Your task to perform on an android device: check out phone information Image 0: 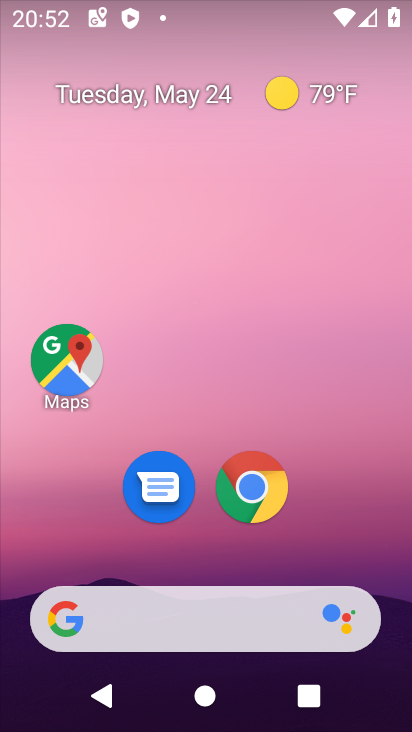
Step 0: press home button
Your task to perform on an android device: check out phone information Image 1: 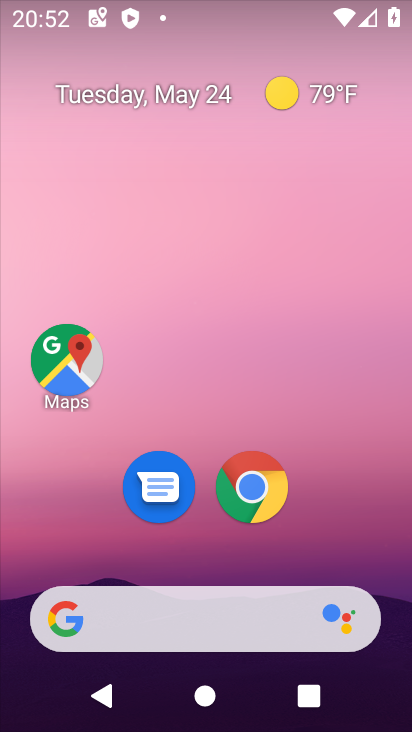
Step 1: drag from (391, 595) to (306, 92)
Your task to perform on an android device: check out phone information Image 2: 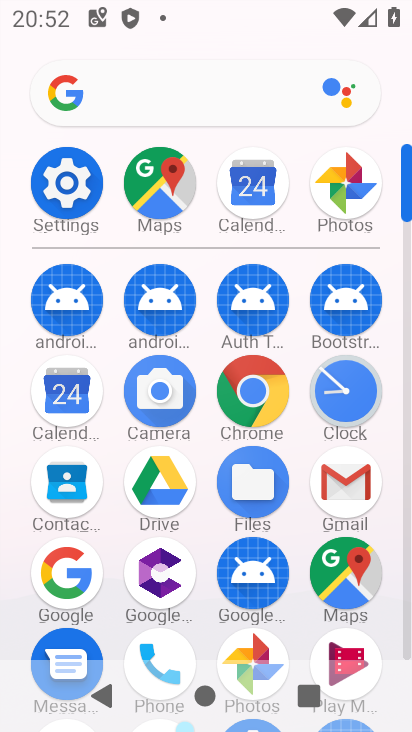
Step 2: click (405, 536)
Your task to perform on an android device: check out phone information Image 3: 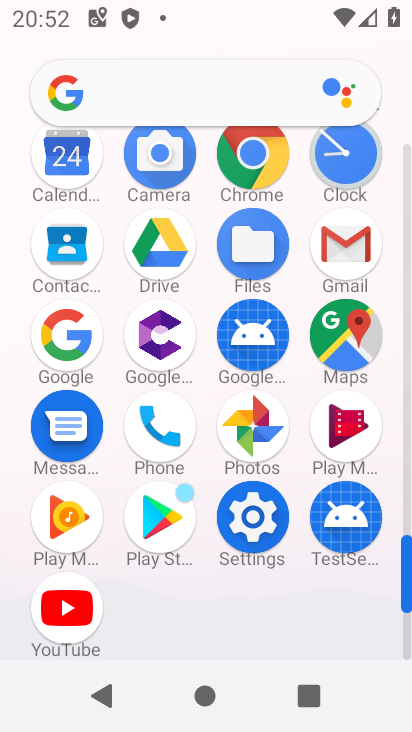
Step 3: click (171, 437)
Your task to perform on an android device: check out phone information Image 4: 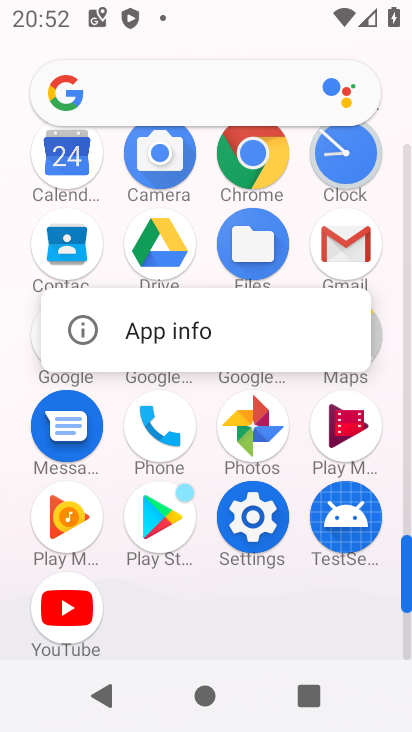
Step 4: click (244, 316)
Your task to perform on an android device: check out phone information Image 5: 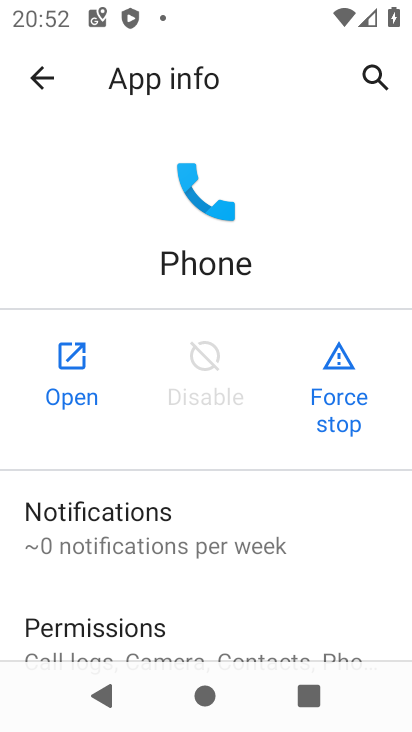
Step 5: task complete